Your task to perform on an android device: Look up the top rated 18v miter saw on Home Depot. Image 0: 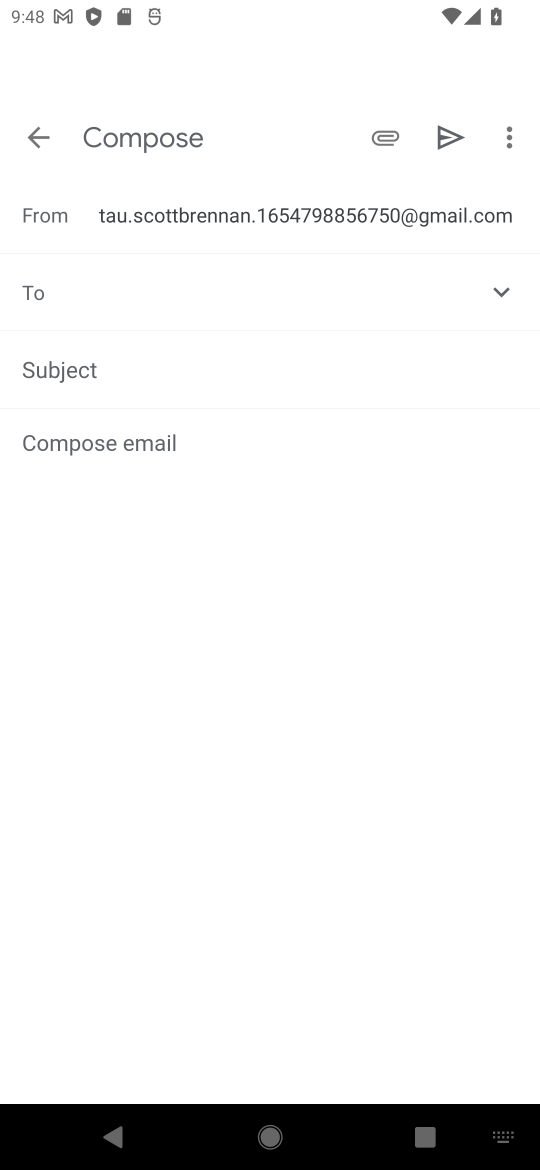
Step 0: press home button
Your task to perform on an android device: Look up the top rated 18v miter saw on Home Depot. Image 1: 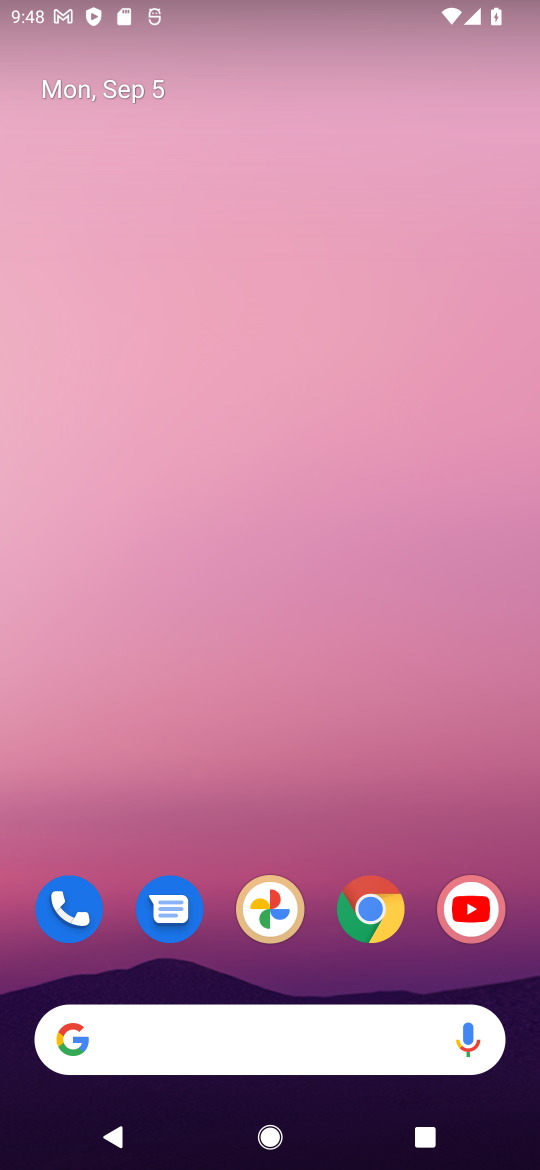
Step 1: click (391, 926)
Your task to perform on an android device: Look up the top rated 18v miter saw on Home Depot. Image 2: 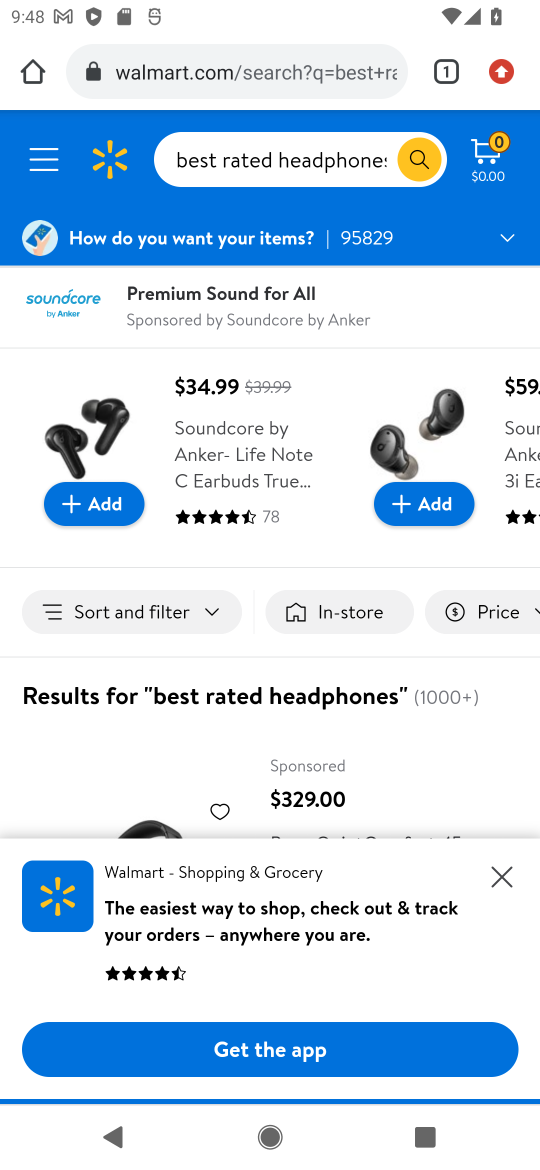
Step 2: click (216, 84)
Your task to perform on an android device: Look up the top rated 18v miter saw on Home Depot. Image 3: 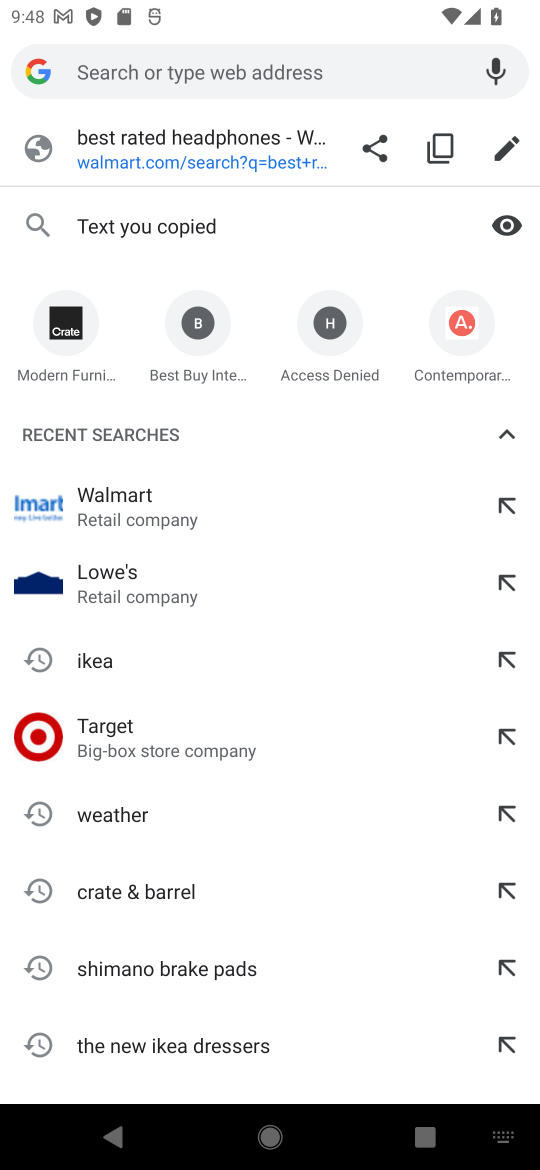
Step 3: type "homedepot"
Your task to perform on an android device: Look up the top rated 18v miter saw on Home Depot. Image 4: 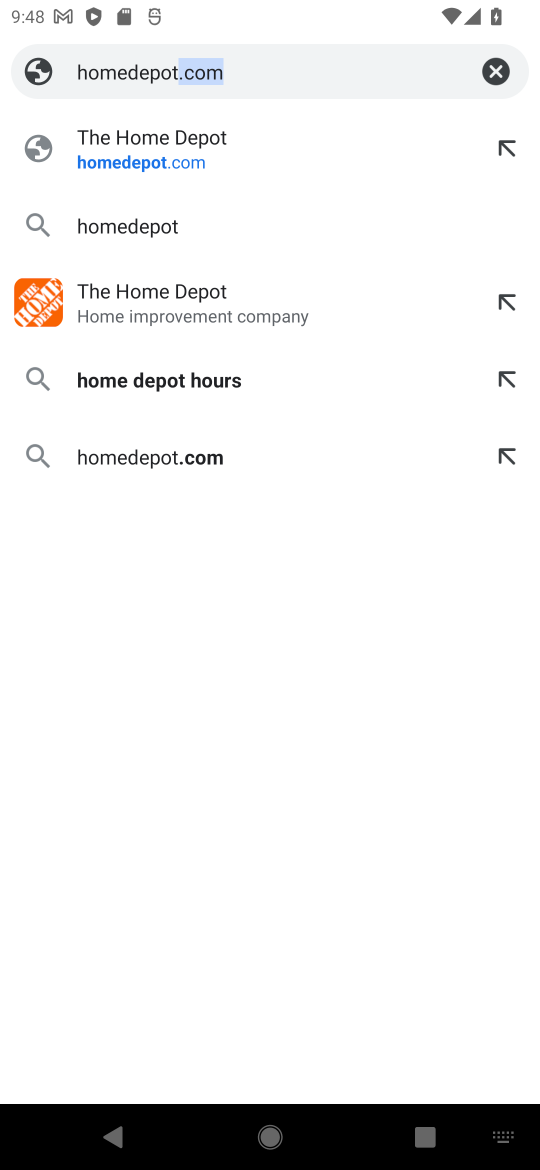
Step 4: click (145, 155)
Your task to perform on an android device: Look up the top rated 18v miter saw on Home Depot. Image 5: 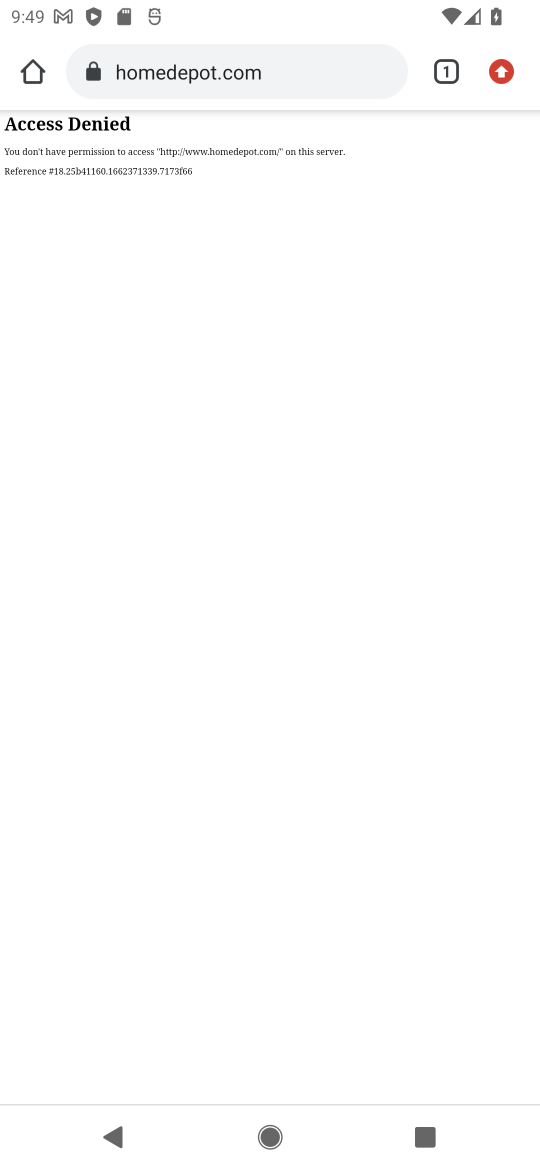
Step 5: task complete